Your task to perform on an android device: check google app version Image 0: 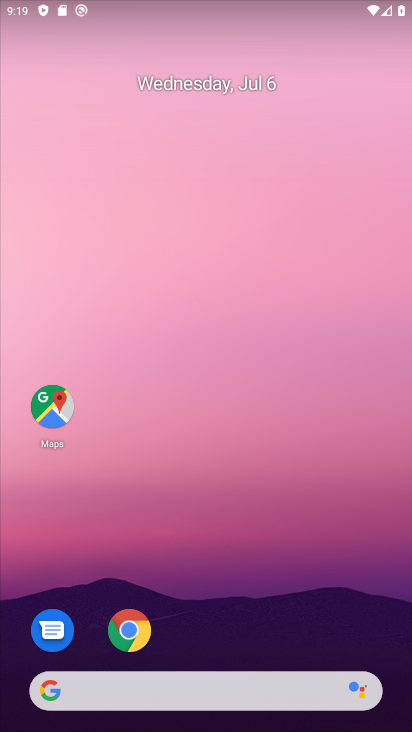
Step 0: click (366, 147)
Your task to perform on an android device: check google app version Image 1: 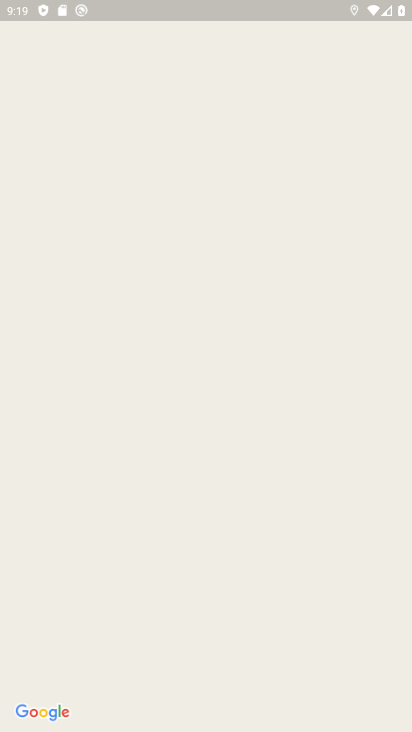
Step 1: press home button
Your task to perform on an android device: check google app version Image 2: 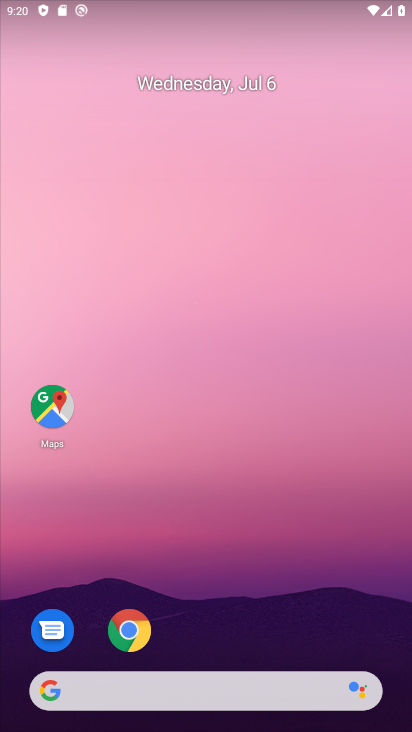
Step 2: click (126, 629)
Your task to perform on an android device: check google app version Image 3: 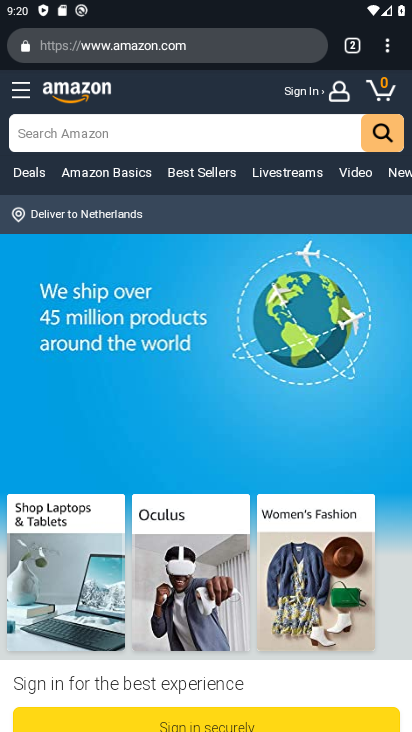
Step 3: click (390, 56)
Your task to perform on an android device: check google app version Image 4: 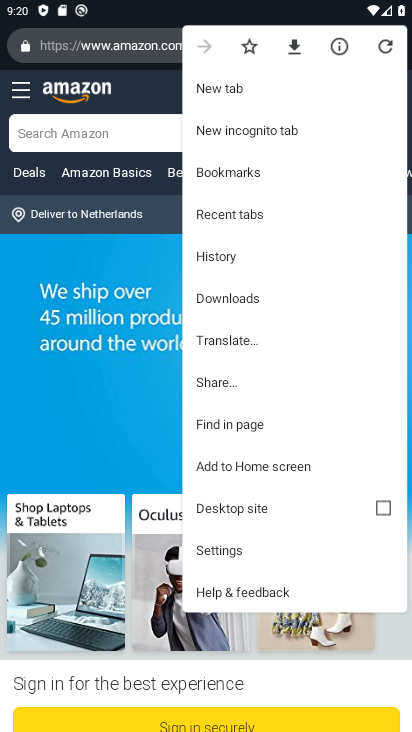
Step 4: click (233, 542)
Your task to perform on an android device: check google app version Image 5: 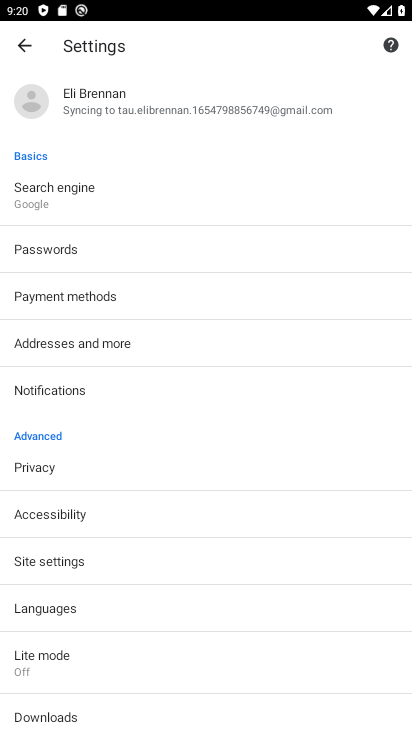
Step 5: drag from (89, 700) to (146, 348)
Your task to perform on an android device: check google app version Image 6: 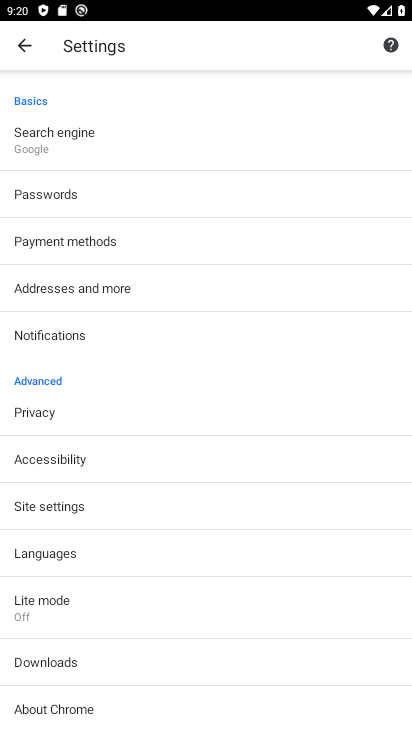
Step 6: click (60, 705)
Your task to perform on an android device: check google app version Image 7: 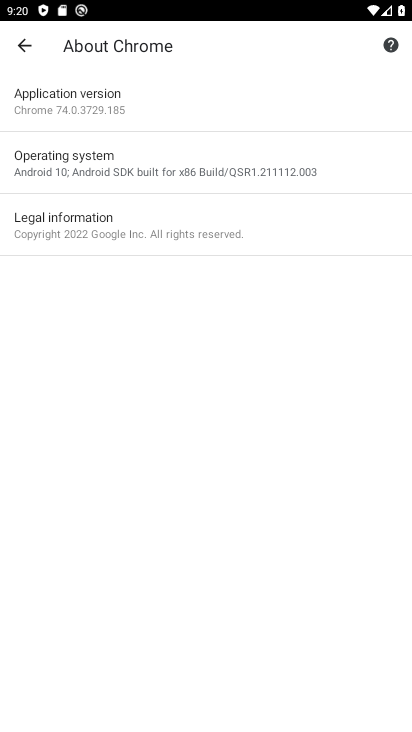
Step 7: click (71, 99)
Your task to perform on an android device: check google app version Image 8: 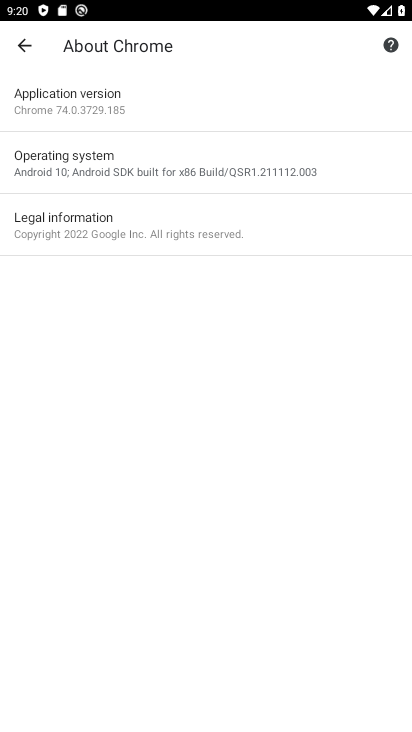
Step 8: task complete